Your task to perform on an android device: Toggle the flashlight Image 0: 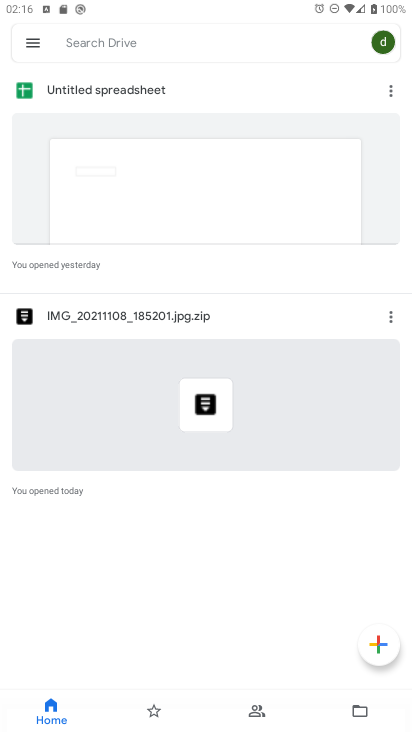
Step 0: press home button
Your task to perform on an android device: Toggle the flashlight Image 1: 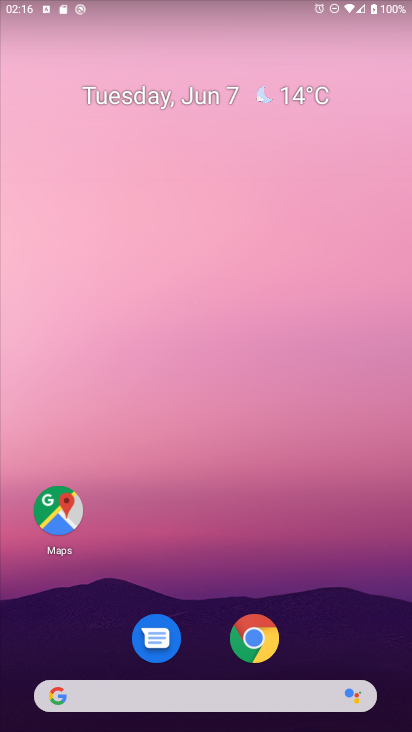
Step 1: drag from (236, 703) to (207, 188)
Your task to perform on an android device: Toggle the flashlight Image 2: 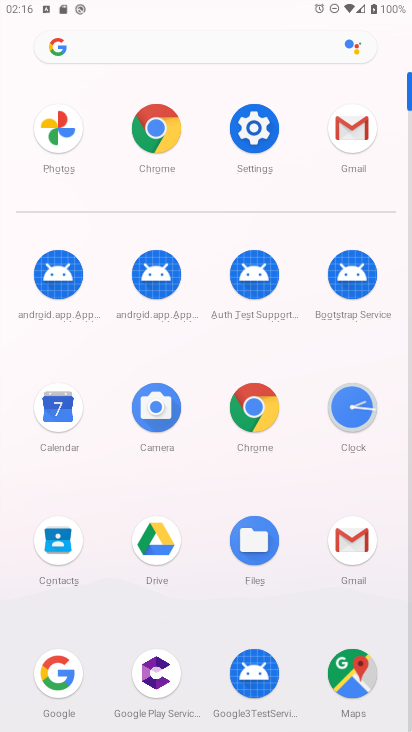
Step 2: click (242, 137)
Your task to perform on an android device: Toggle the flashlight Image 3: 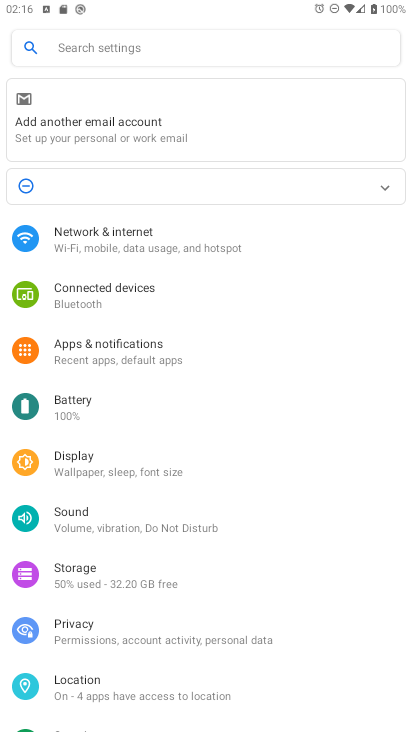
Step 3: click (104, 51)
Your task to perform on an android device: Toggle the flashlight Image 4: 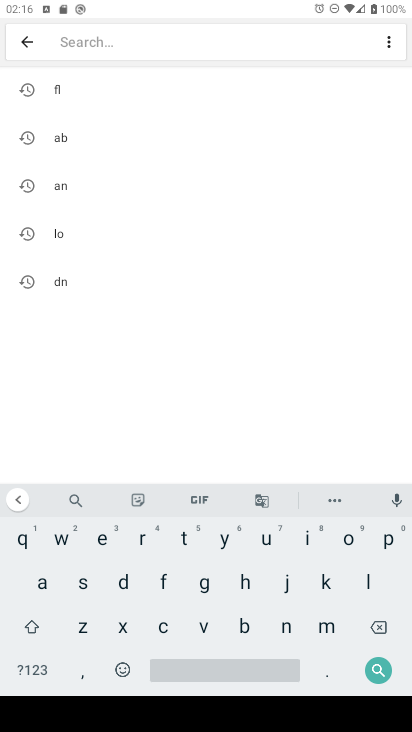
Step 4: click (103, 89)
Your task to perform on an android device: Toggle the flashlight Image 5: 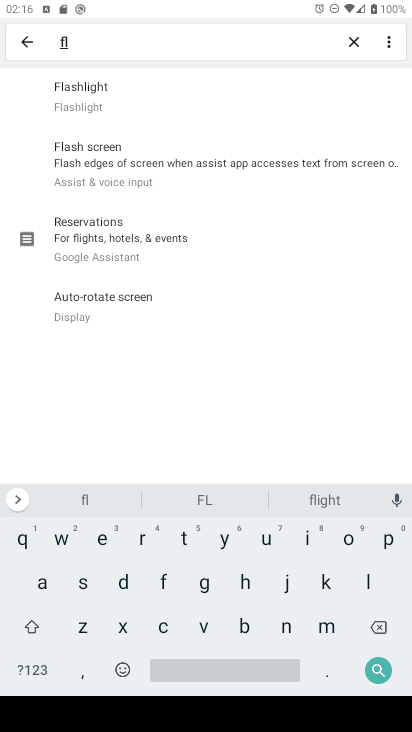
Step 5: click (149, 99)
Your task to perform on an android device: Toggle the flashlight Image 6: 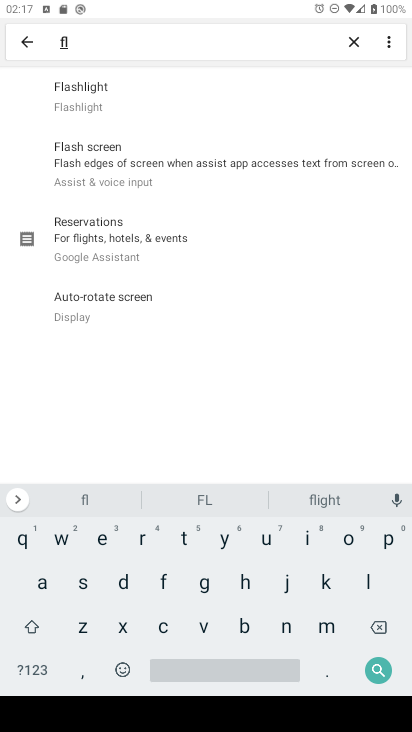
Step 6: task complete